Your task to perform on an android device: Search for seafood restaurants on Google Maps Image 0: 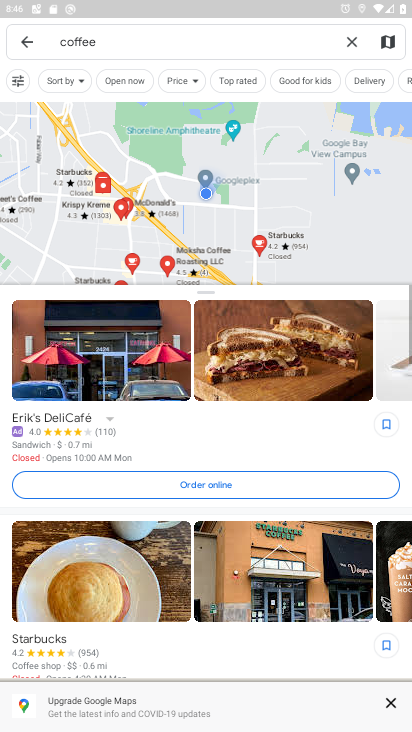
Step 0: press home button
Your task to perform on an android device: Search for seafood restaurants on Google Maps Image 1: 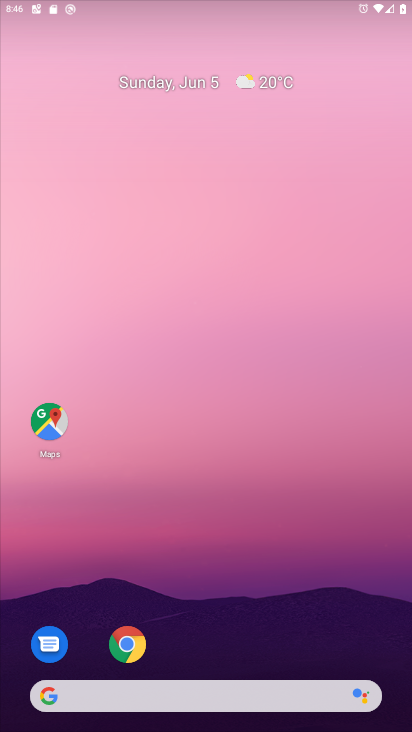
Step 1: drag from (355, 616) to (315, 185)
Your task to perform on an android device: Search for seafood restaurants on Google Maps Image 2: 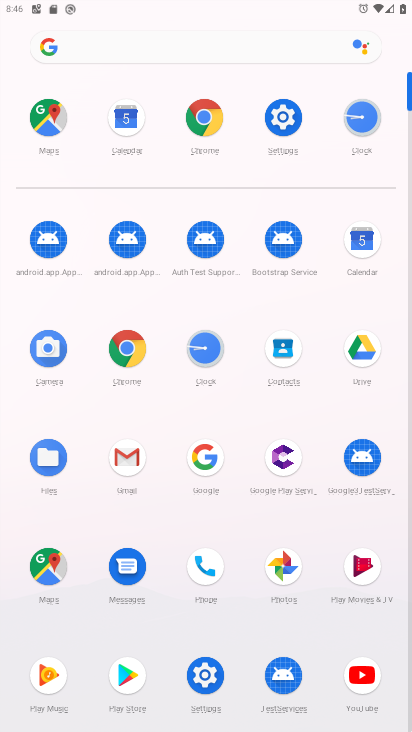
Step 2: click (48, 584)
Your task to perform on an android device: Search for seafood restaurants on Google Maps Image 3: 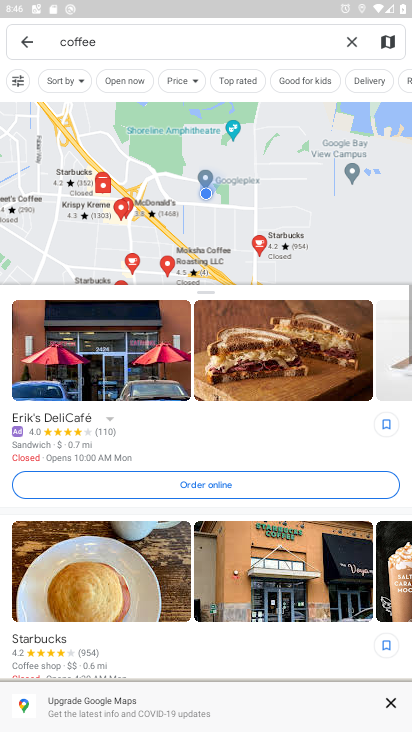
Step 3: click (354, 36)
Your task to perform on an android device: Search for seafood restaurants on Google Maps Image 4: 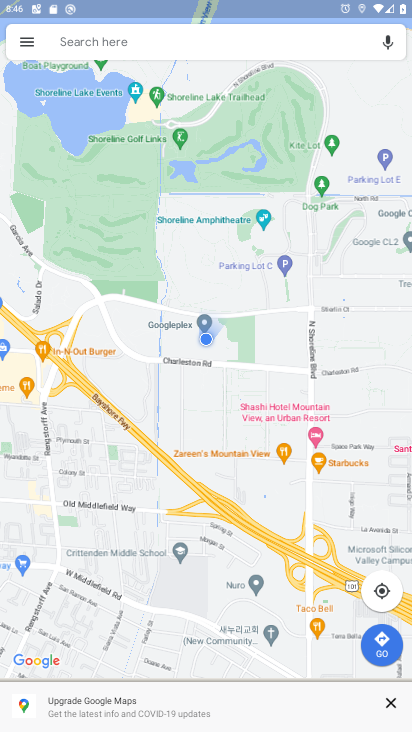
Step 4: type "seafood restaurants "
Your task to perform on an android device: Search for seafood restaurants on Google Maps Image 5: 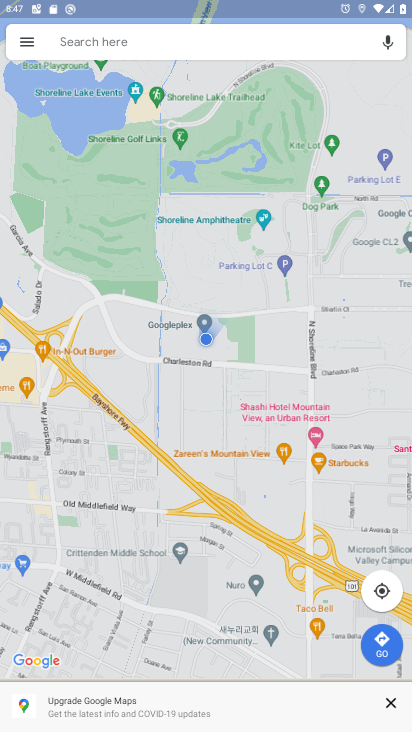
Step 5: click (298, 54)
Your task to perform on an android device: Search for seafood restaurants on Google Maps Image 6: 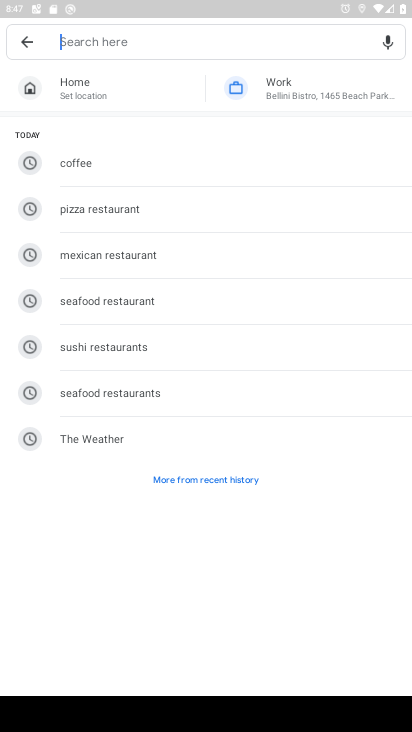
Step 6: click (98, 302)
Your task to perform on an android device: Search for seafood restaurants on Google Maps Image 7: 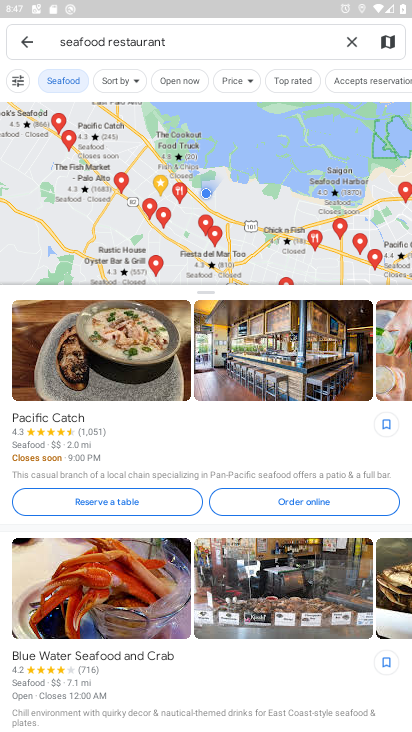
Step 7: task complete